Your task to perform on an android device: Search for pizza restaurants on Maps Image 0: 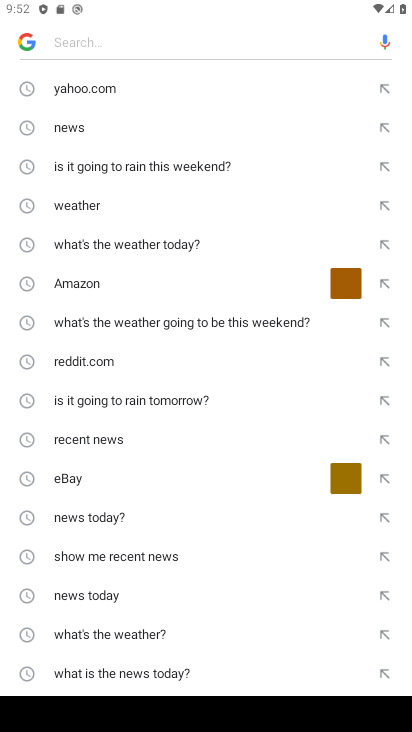
Step 0: press home button
Your task to perform on an android device: Search for pizza restaurants on Maps Image 1: 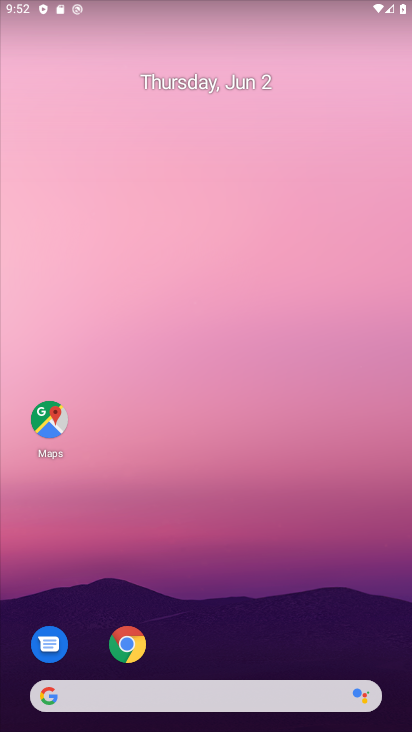
Step 1: click (64, 431)
Your task to perform on an android device: Search for pizza restaurants on Maps Image 2: 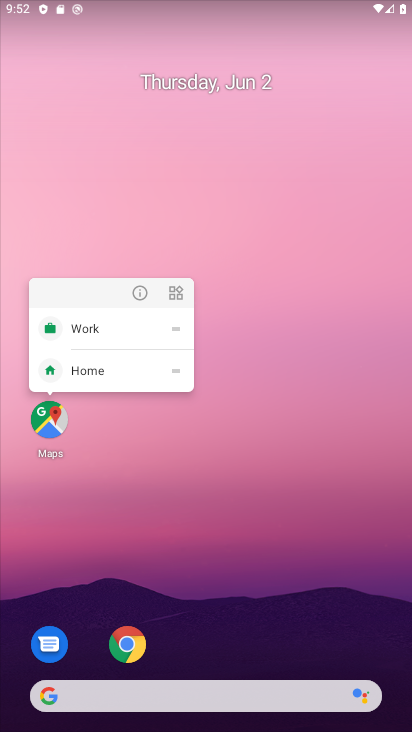
Step 2: click (50, 422)
Your task to perform on an android device: Search for pizza restaurants on Maps Image 3: 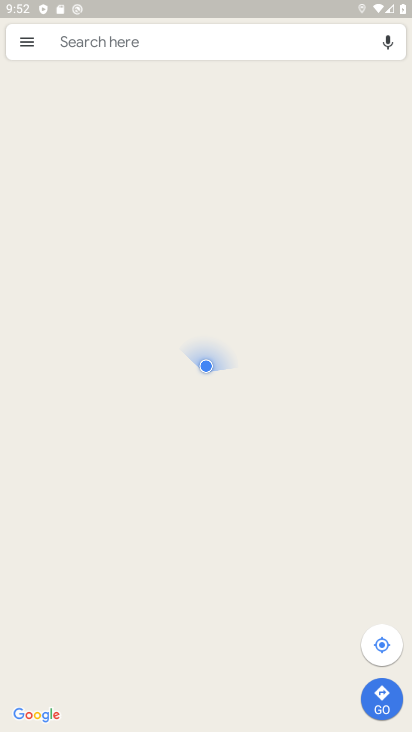
Step 3: click (153, 41)
Your task to perform on an android device: Search for pizza restaurants on Maps Image 4: 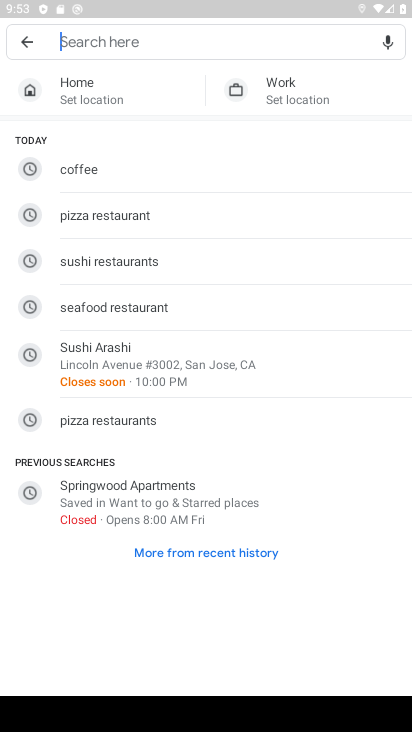
Step 4: click (131, 221)
Your task to perform on an android device: Search for pizza restaurants on Maps Image 5: 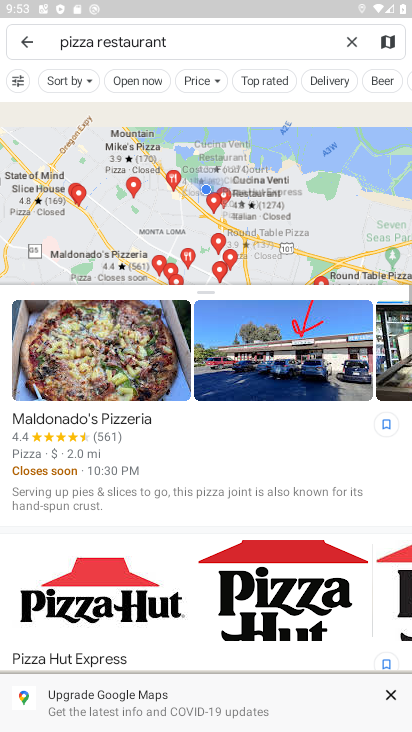
Step 5: task complete